Your task to perform on an android device: Toggle the flashlight Image 0: 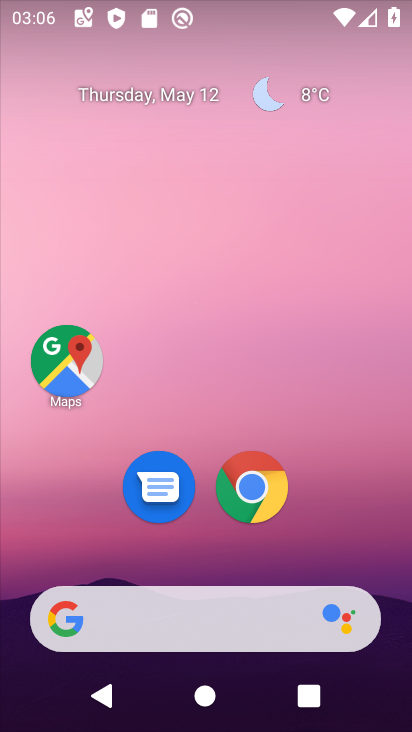
Step 0: drag from (355, 468) to (295, 81)
Your task to perform on an android device: Toggle the flashlight Image 1: 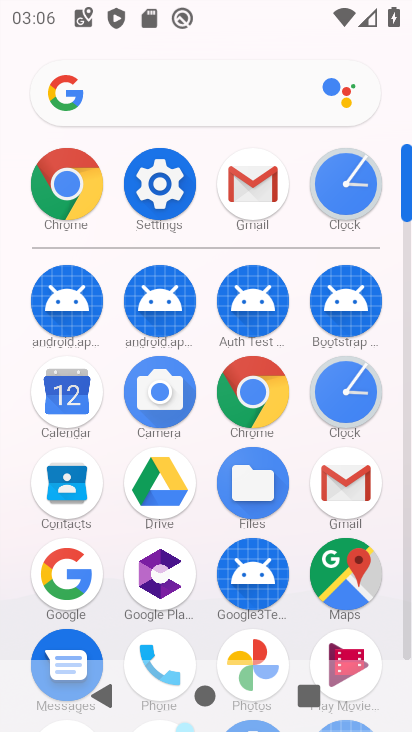
Step 1: click (170, 180)
Your task to perform on an android device: Toggle the flashlight Image 2: 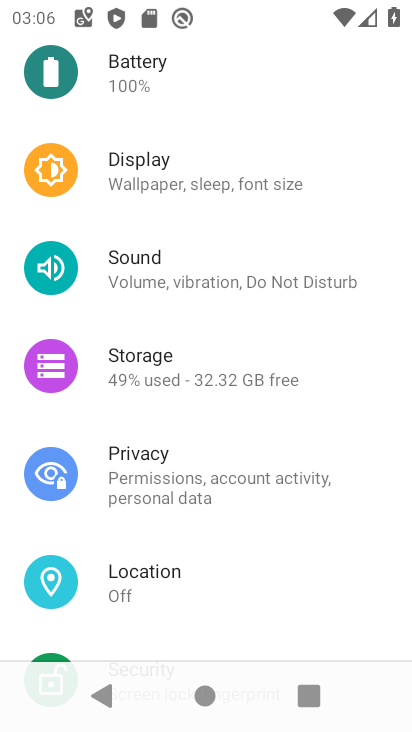
Step 2: drag from (229, 119) to (123, 523)
Your task to perform on an android device: Toggle the flashlight Image 3: 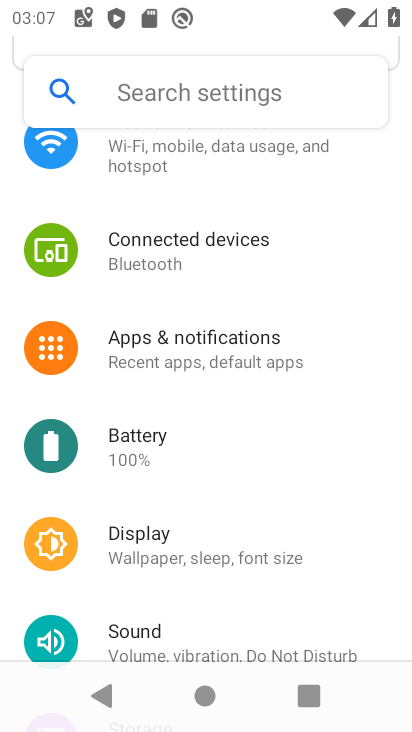
Step 3: drag from (199, 276) to (172, 536)
Your task to perform on an android device: Toggle the flashlight Image 4: 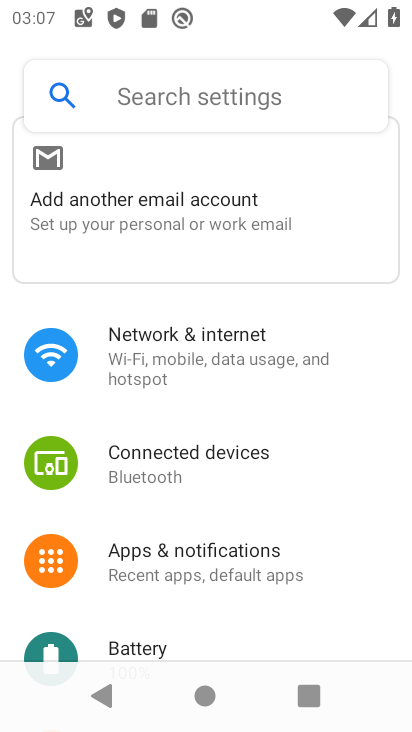
Step 4: drag from (178, 483) to (251, 208)
Your task to perform on an android device: Toggle the flashlight Image 5: 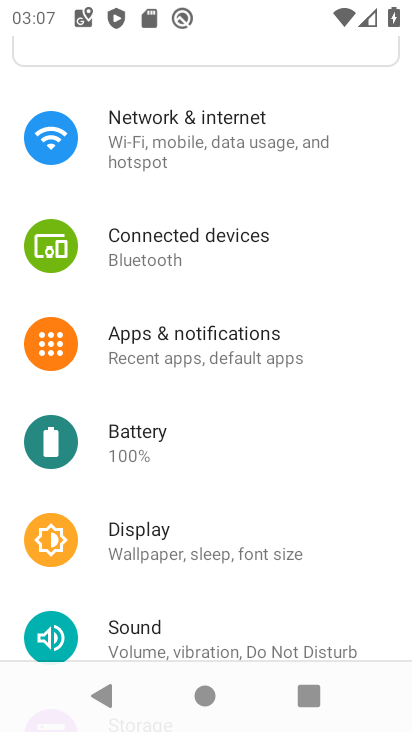
Step 5: click (112, 541)
Your task to perform on an android device: Toggle the flashlight Image 6: 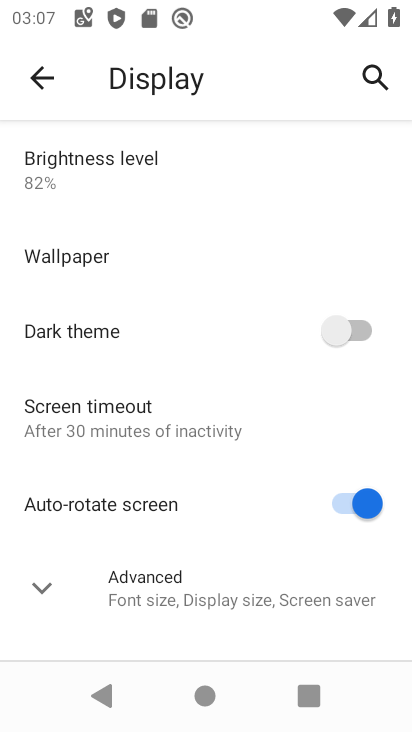
Step 6: task complete